Your task to perform on an android device: change alarm snooze length Image 0: 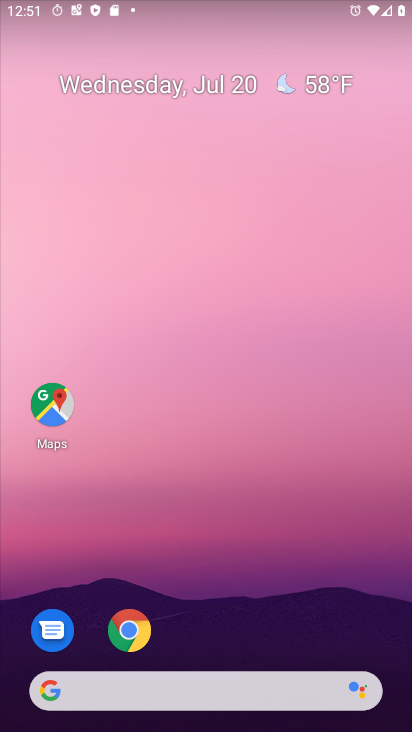
Step 0: press home button
Your task to perform on an android device: change alarm snooze length Image 1: 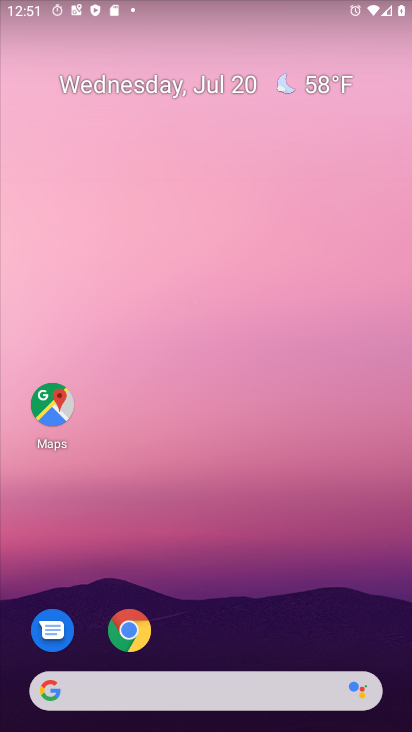
Step 1: drag from (196, 659) to (274, 74)
Your task to perform on an android device: change alarm snooze length Image 2: 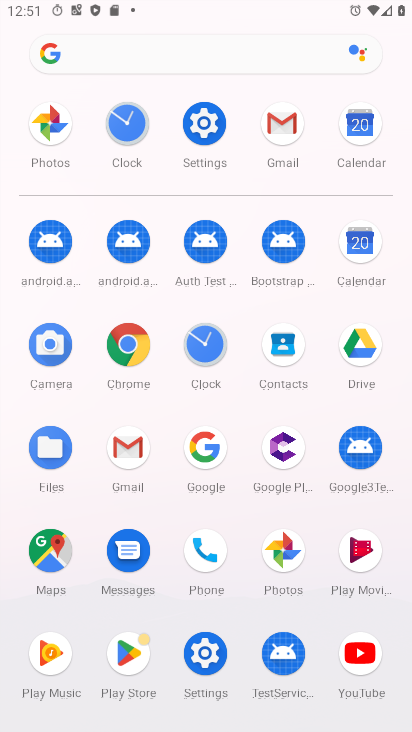
Step 2: click (127, 126)
Your task to perform on an android device: change alarm snooze length Image 3: 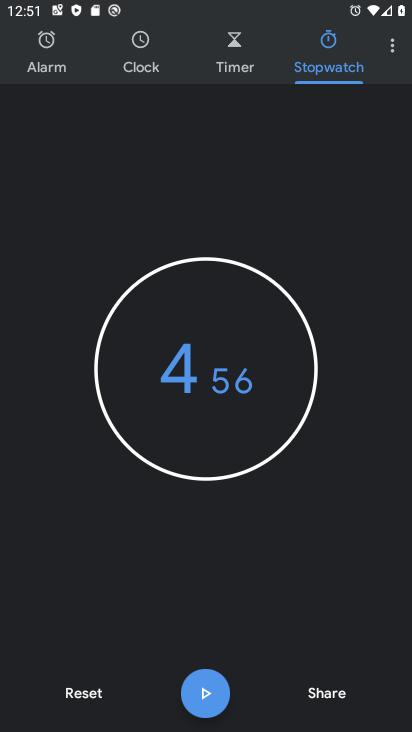
Step 3: click (387, 46)
Your task to perform on an android device: change alarm snooze length Image 4: 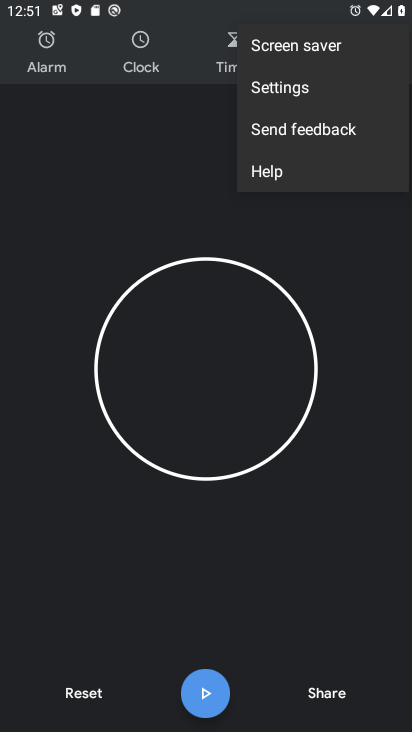
Step 4: click (278, 84)
Your task to perform on an android device: change alarm snooze length Image 5: 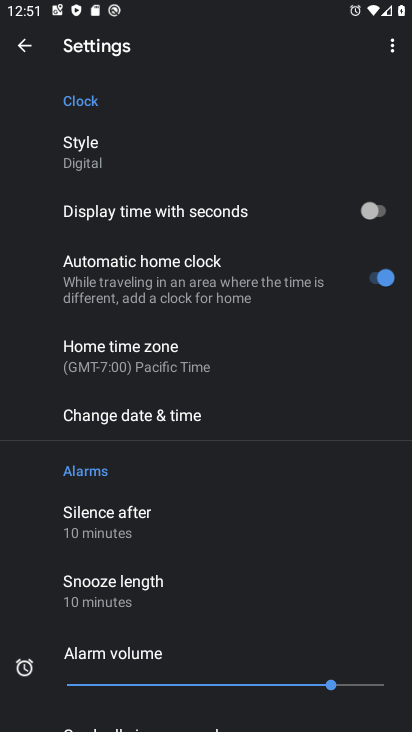
Step 5: click (140, 583)
Your task to perform on an android device: change alarm snooze length Image 6: 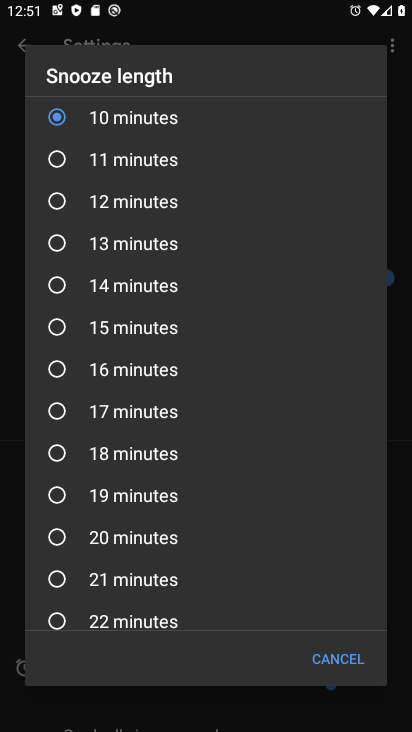
Step 6: click (56, 326)
Your task to perform on an android device: change alarm snooze length Image 7: 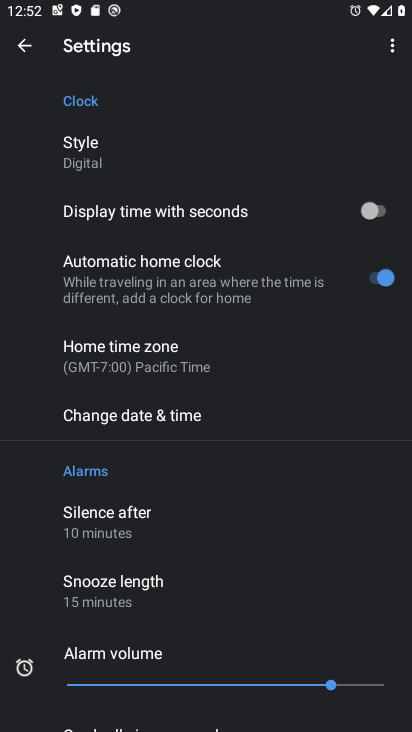
Step 7: task complete